Your task to perform on an android device: open a bookmark in the chrome app Image 0: 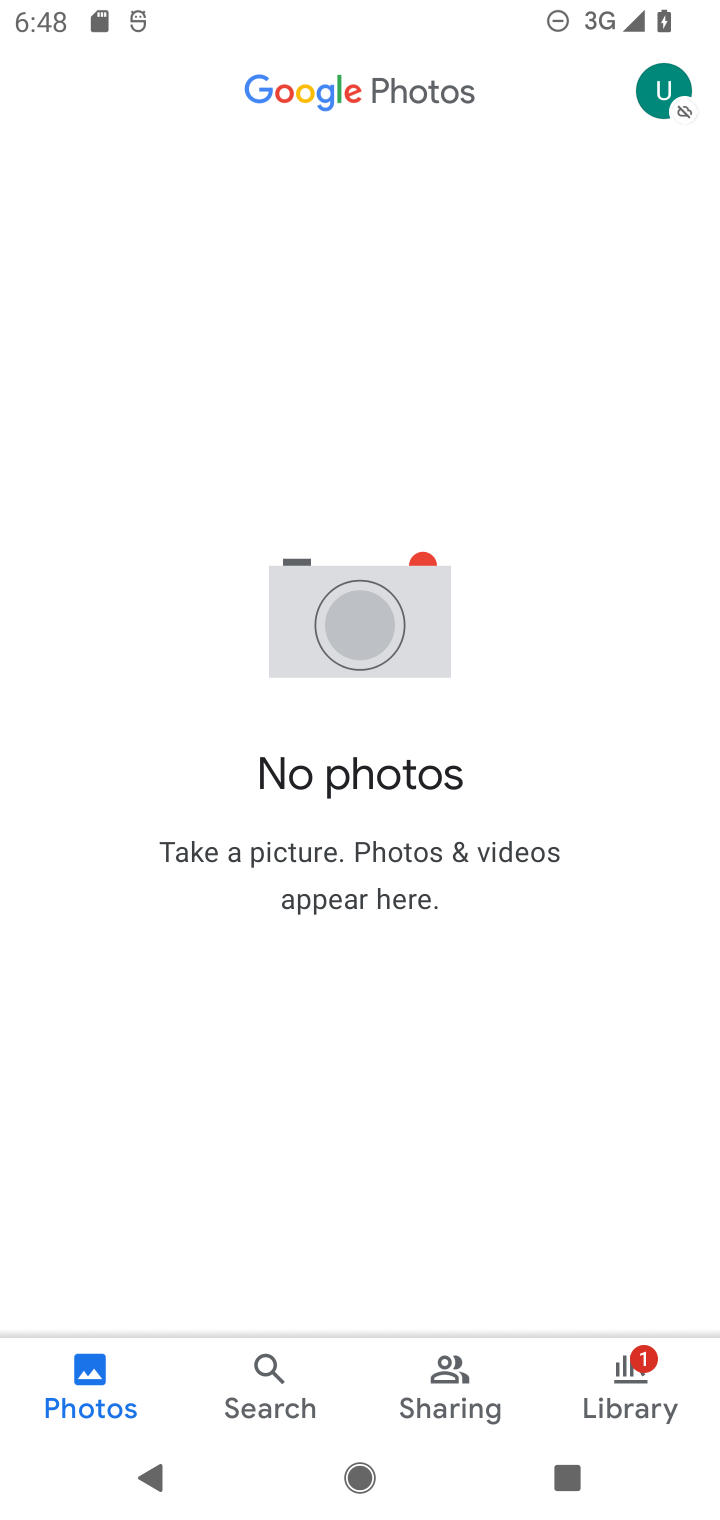
Step 0: press home button
Your task to perform on an android device: open a bookmark in the chrome app Image 1: 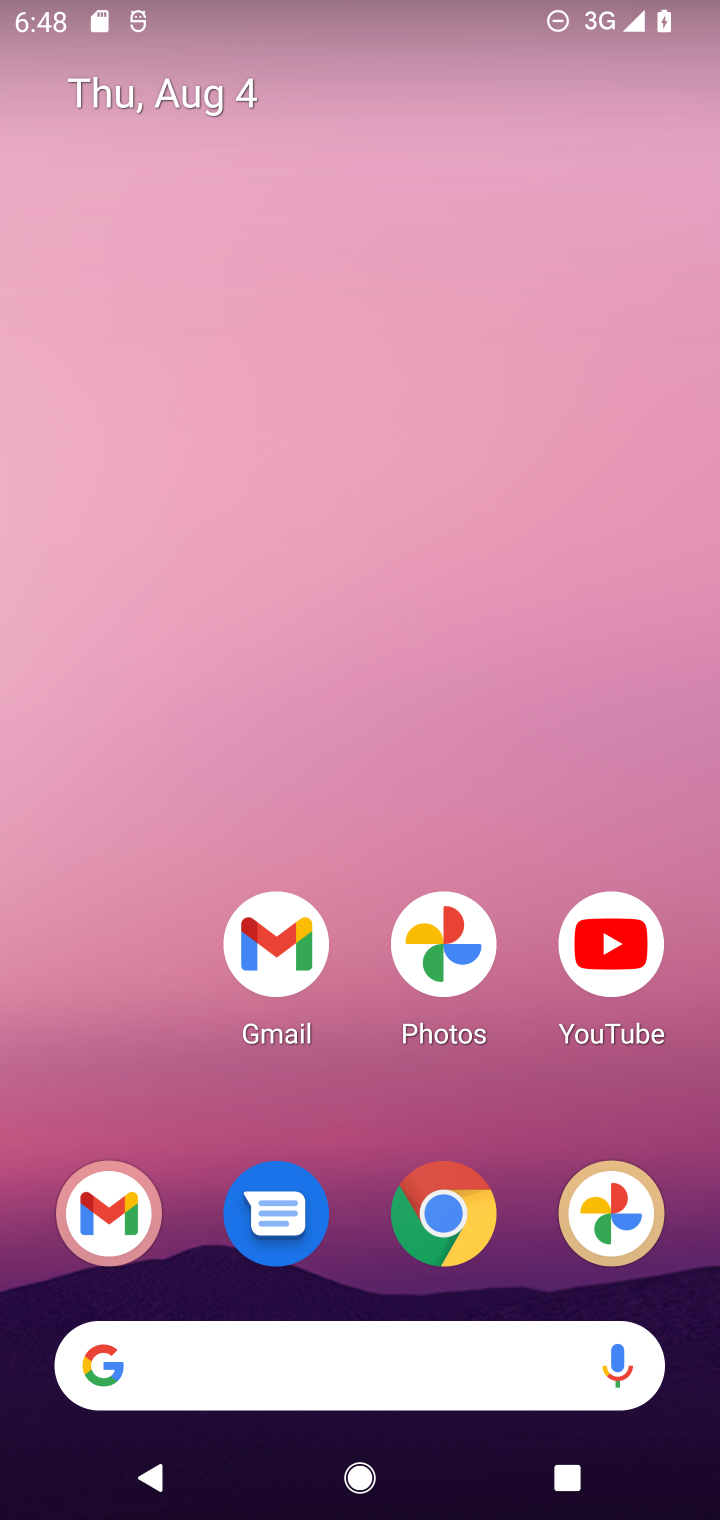
Step 1: drag from (141, 819) to (139, 321)
Your task to perform on an android device: open a bookmark in the chrome app Image 2: 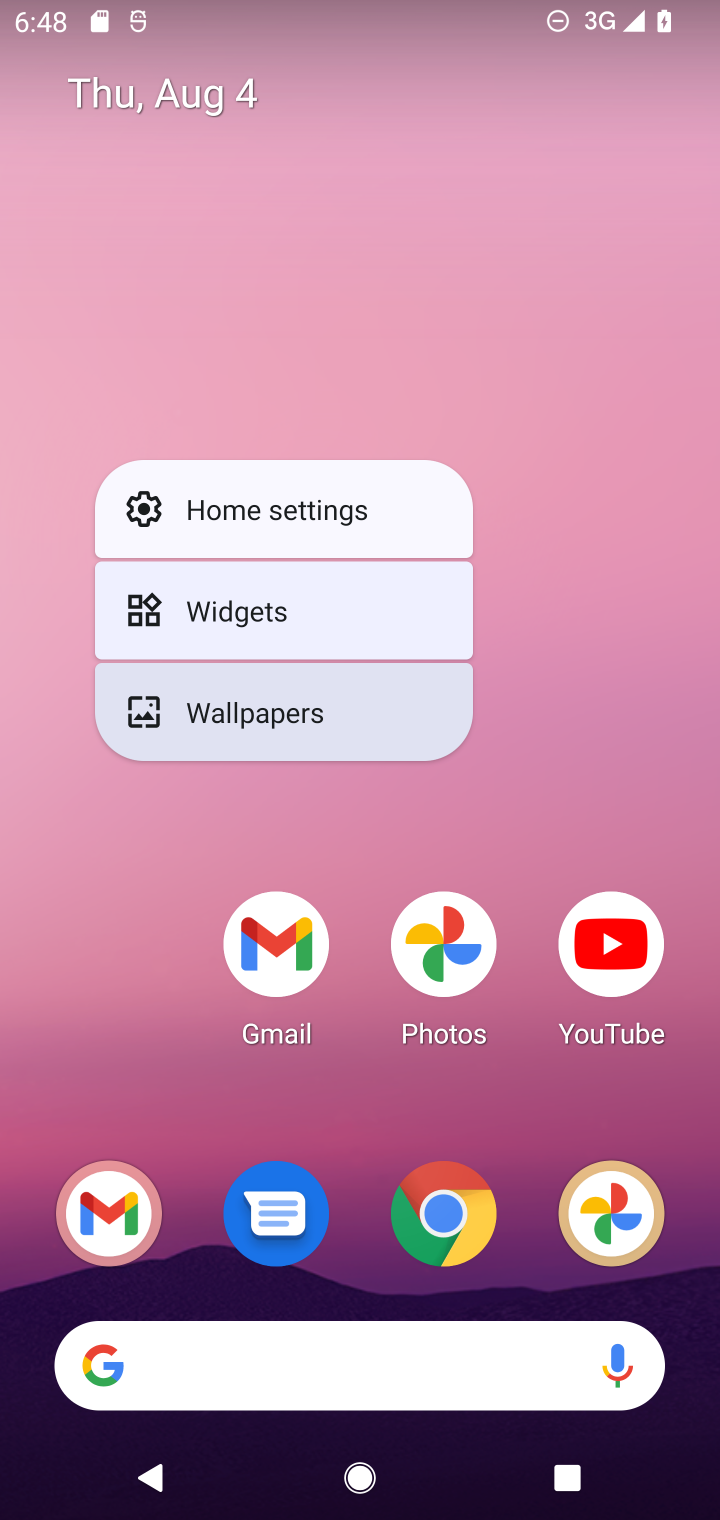
Step 2: drag from (143, 1088) to (81, 188)
Your task to perform on an android device: open a bookmark in the chrome app Image 3: 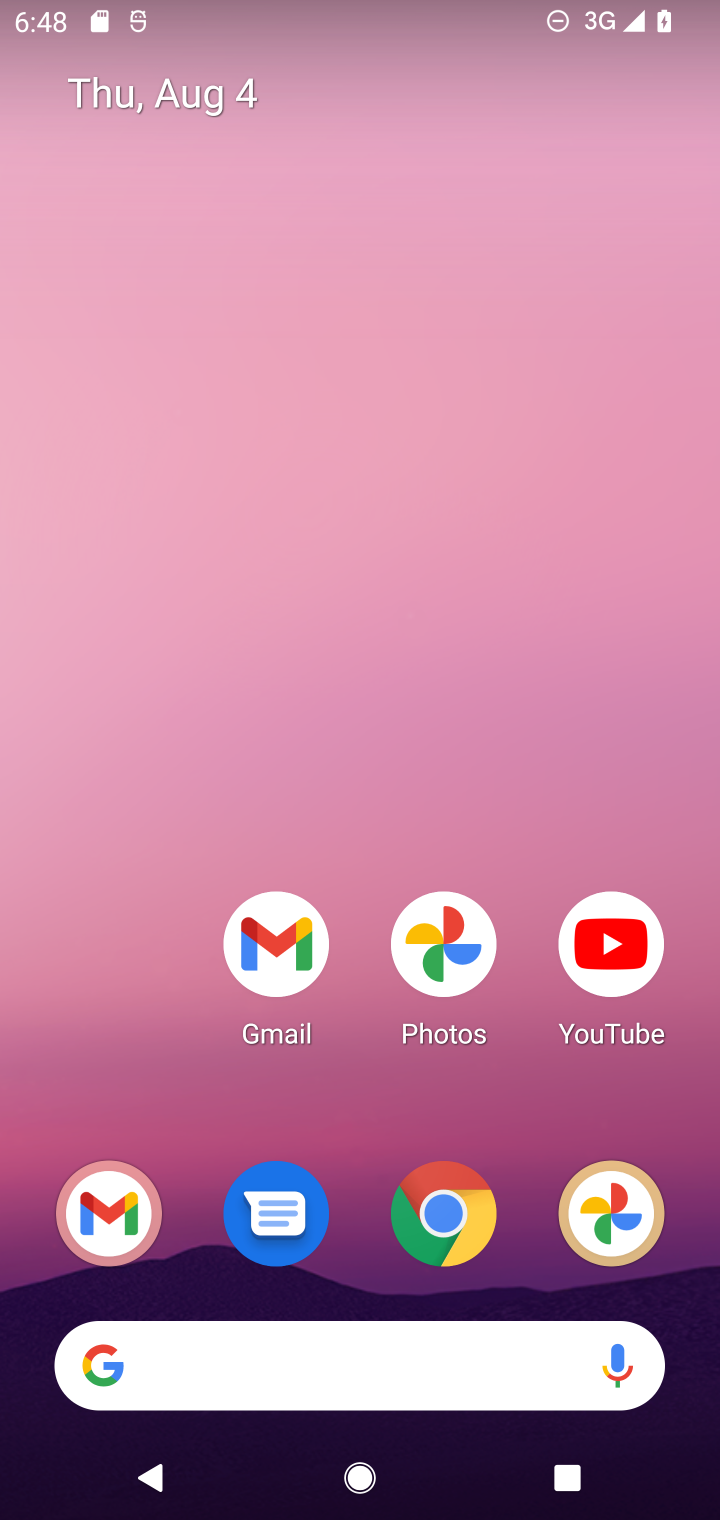
Step 3: drag from (166, 1090) to (191, 30)
Your task to perform on an android device: open a bookmark in the chrome app Image 4: 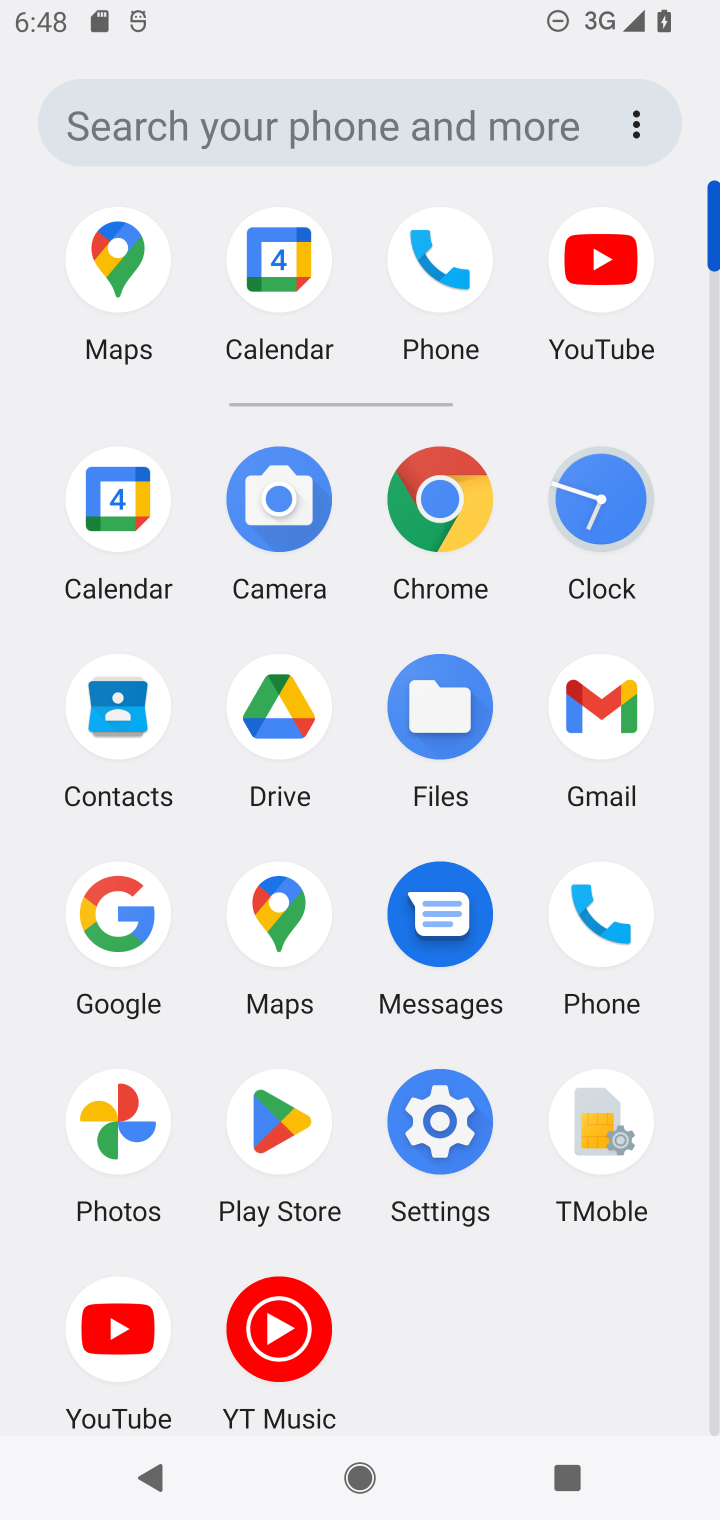
Step 4: click (454, 495)
Your task to perform on an android device: open a bookmark in the chrome app Image 5: 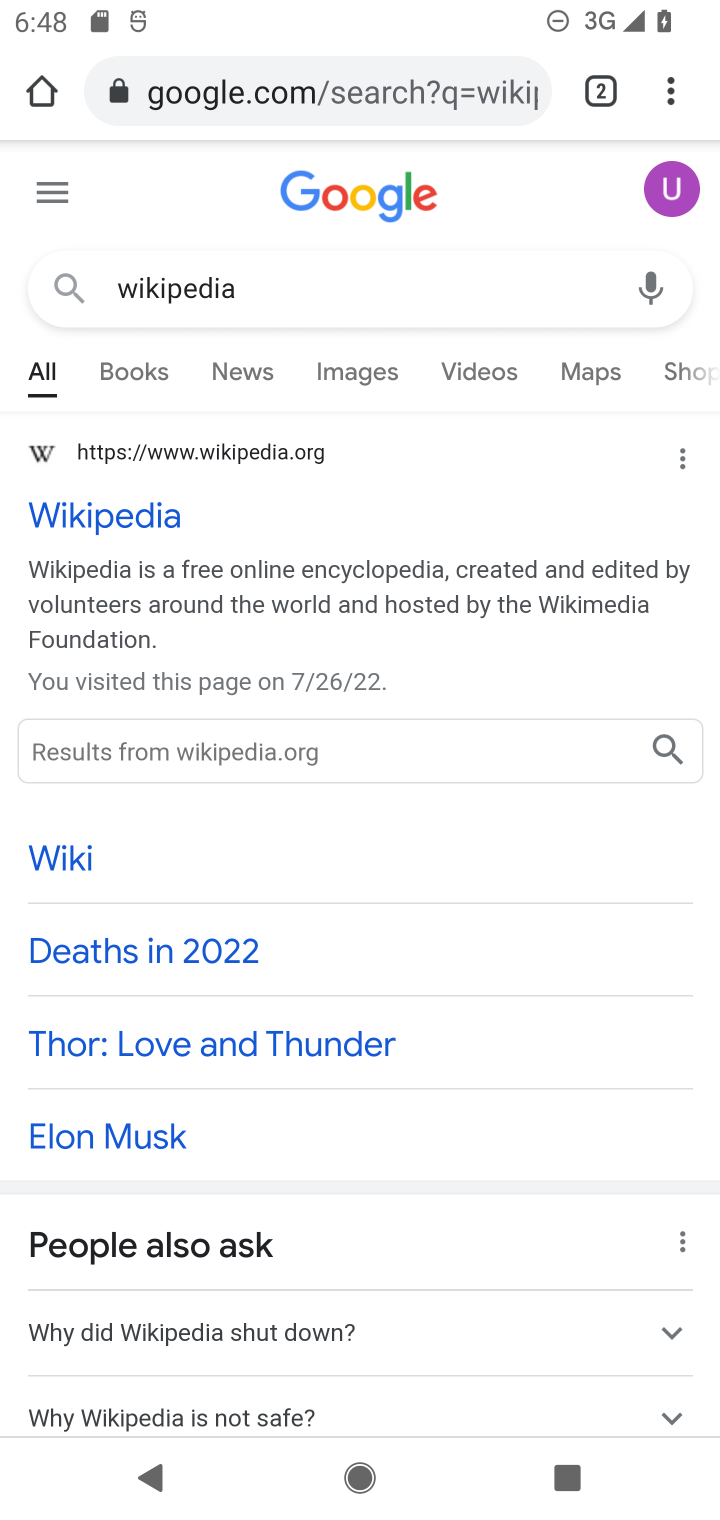
Step 5: click (674, 89)
Your task to perform on an android device: open a bookmark in the chrome app Image 6: 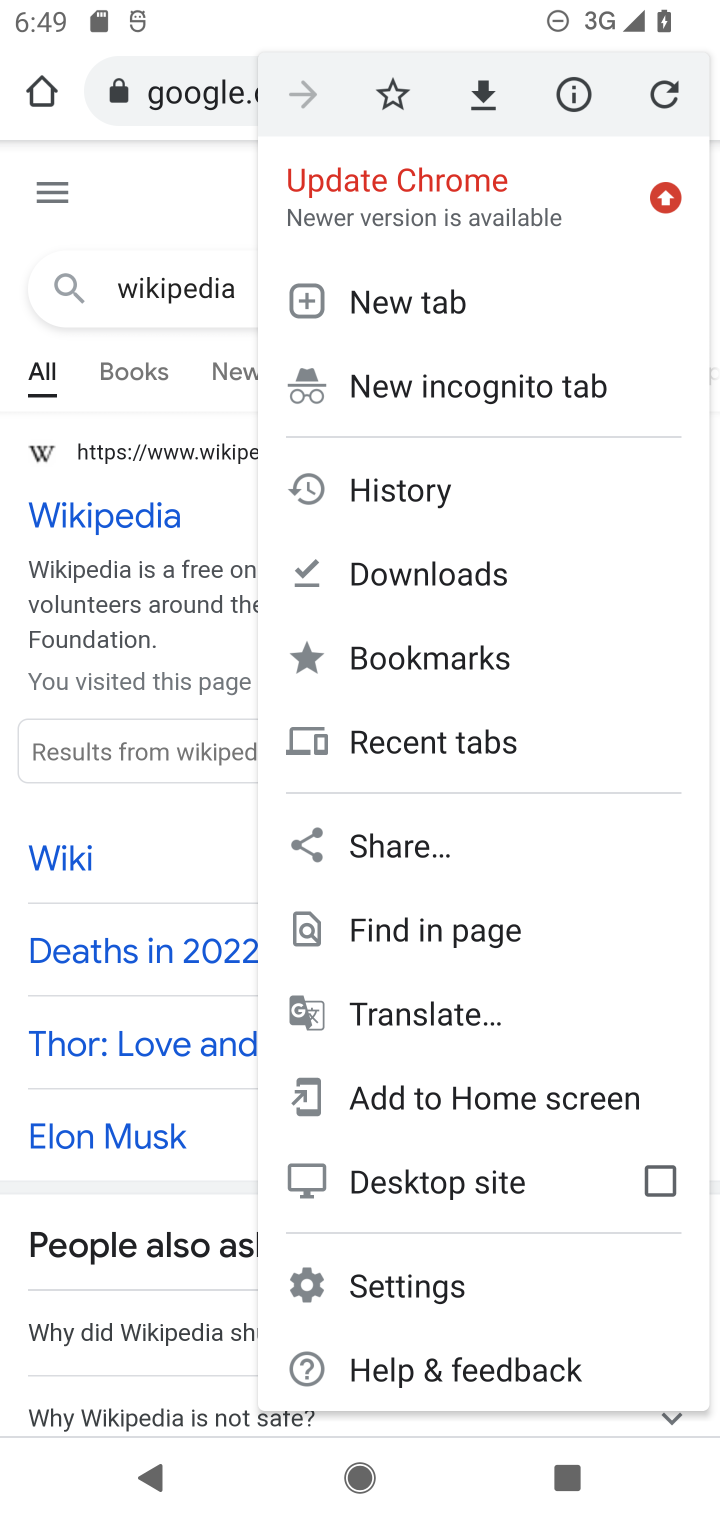
Step 6: click (477, 656)
Your task to perform on an android device: open a bookmark in the chrome app Image 7: 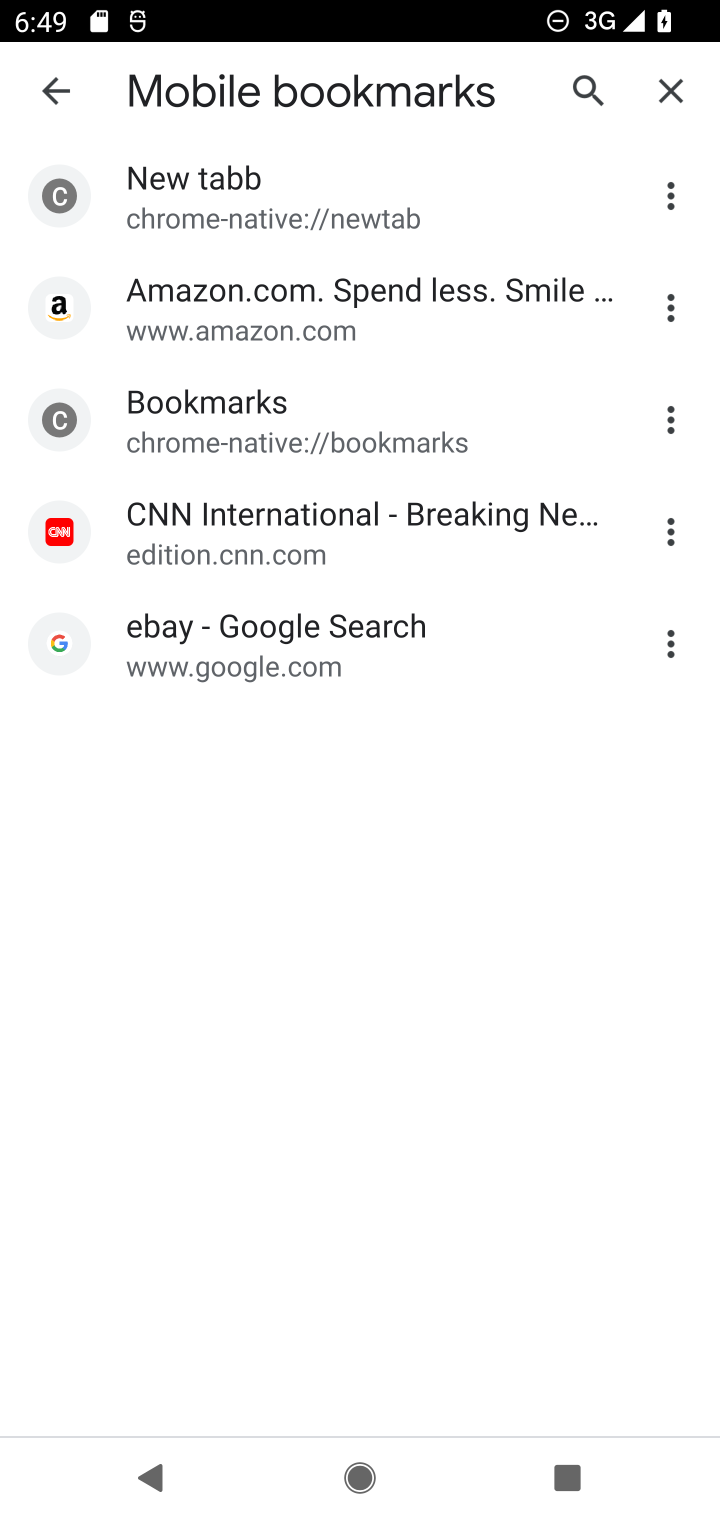
Step 7: click (347, 522)
Your task to perform on an android device: open a bookmark in the chrome app Image 8: 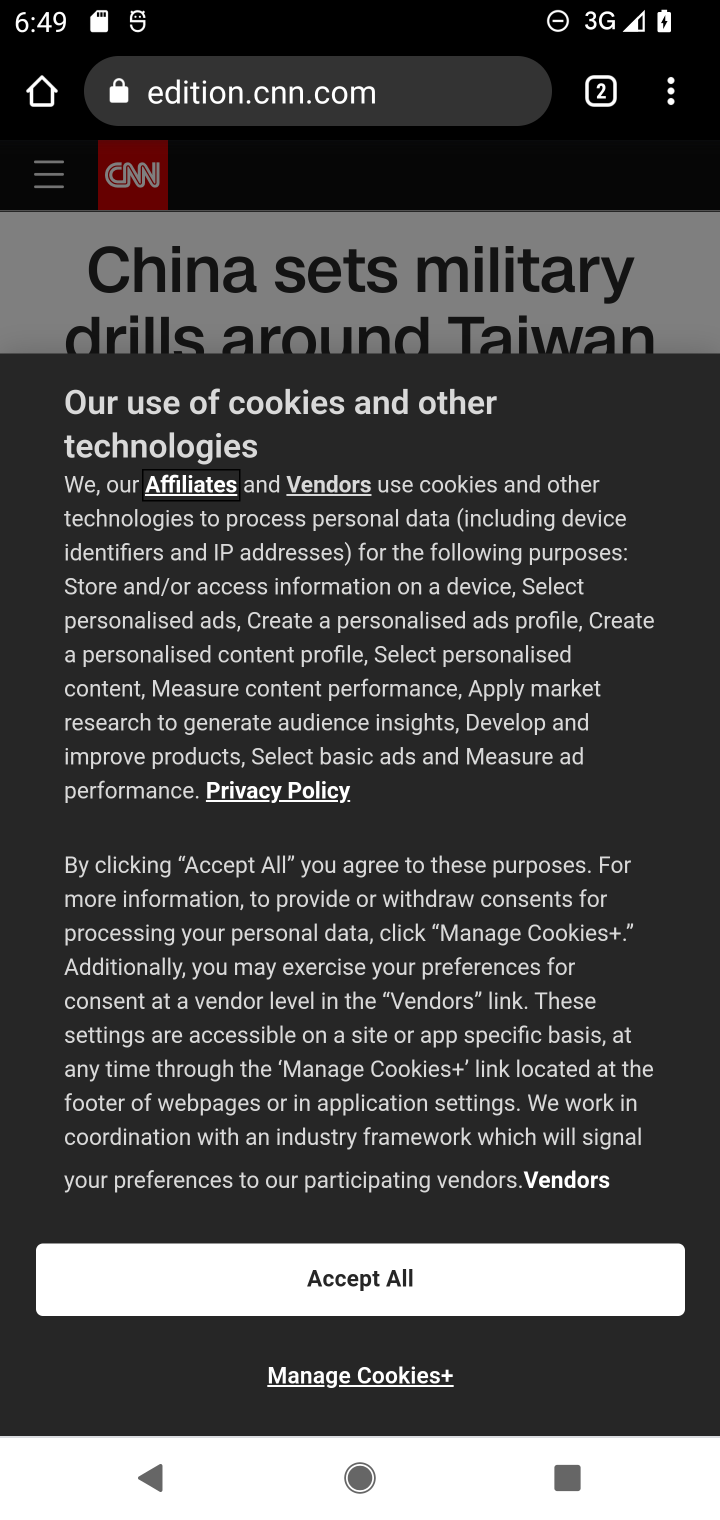
Step 8: task complete